Your task to perform on an android device: open sync settings in chrome Image 0: 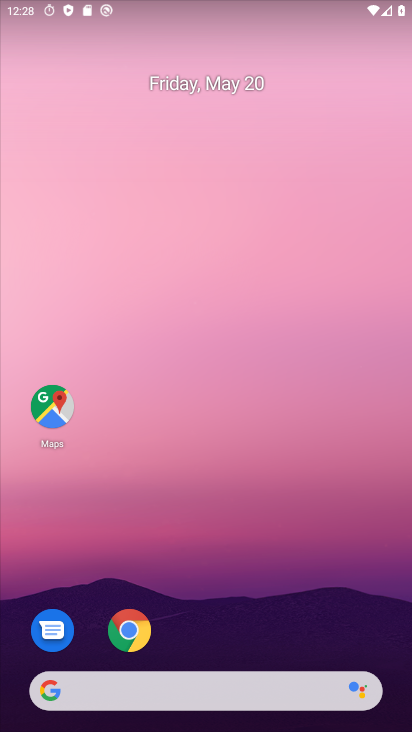
Step 0: click (128, 629)
Your task to perform on an android device: open sync settings in chrome Image 1: 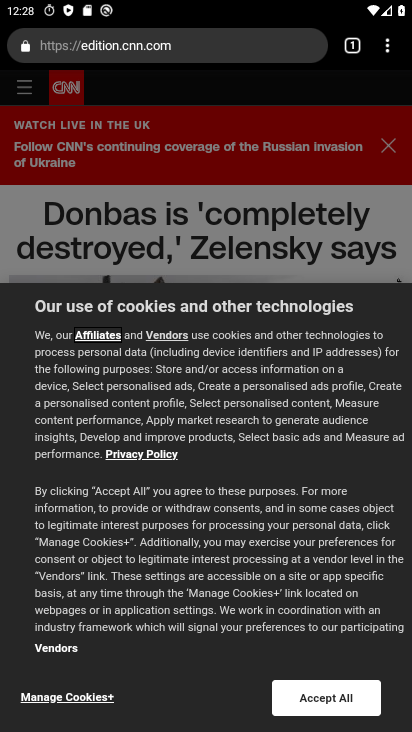
Step 1: click (387, 47)
Your task to perform on an android device: open sync settings in chrome Image 2: 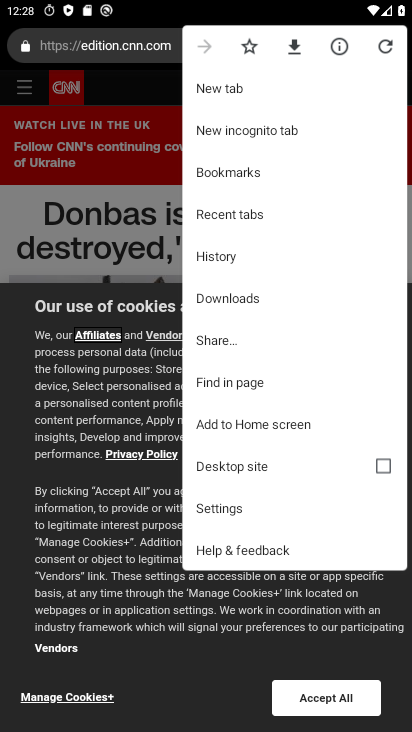
Step 2: click (225, 509)
Your task to perform on an android device: open sync settings in chrome Image 3: 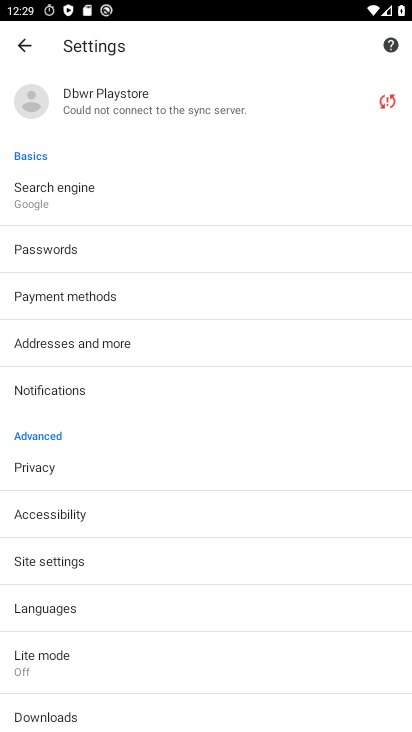
Step 3: click (48, 559)
Your task to perform on an android device: open sync settings in chrome Image 4: 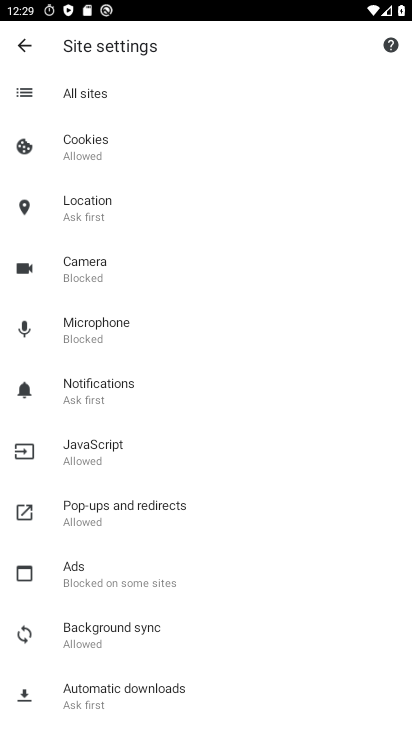
Step 4: click (111, 630)
Your task to perform on an android device: open sync settings in chrome Image 5: 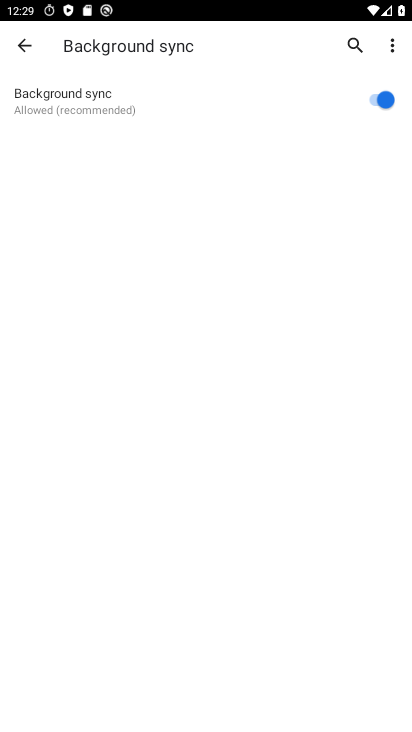
Step 5: task complete